Your task to perform on an android device: delete browsing data in the chrome app Image 0: 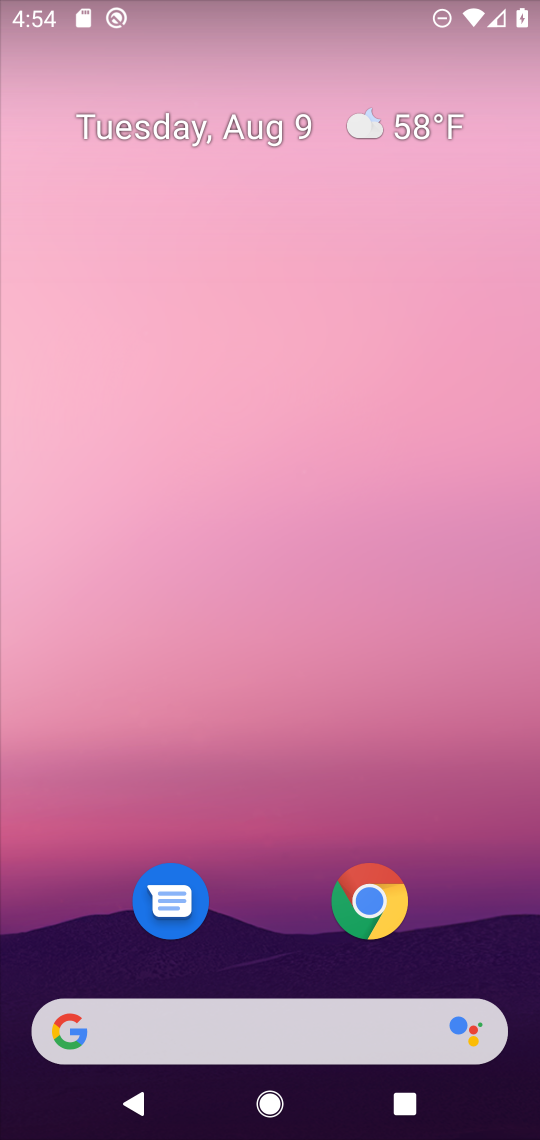
Step 0: press home button
Your task to perform on an android device: delete browsing data in the chrome app Image 1: 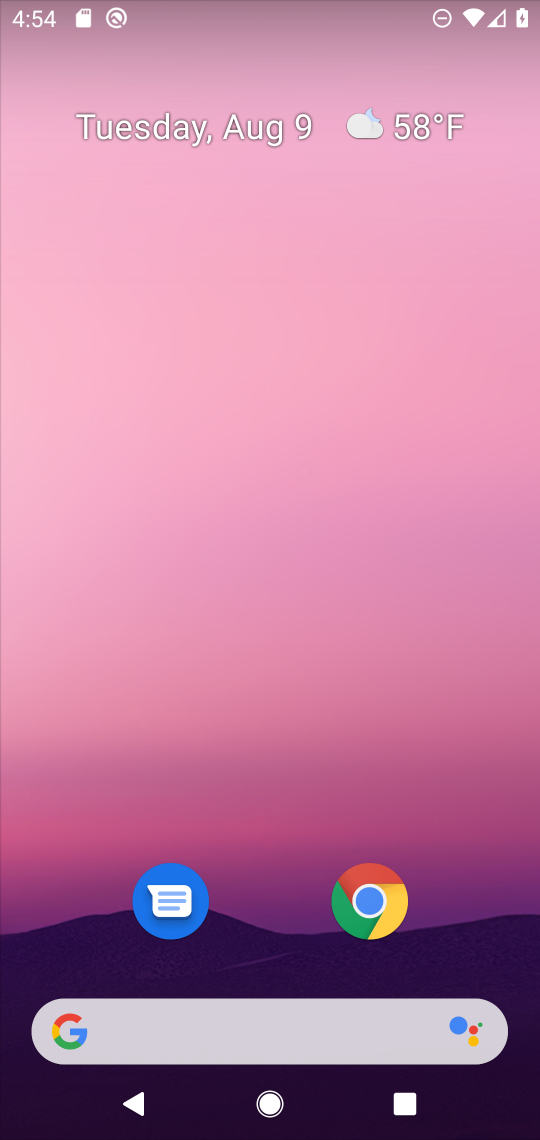
Step 1: drag from (247, 790) to (220, 89)
Your task to perform on an android device: delete browsing data in the chrome app Image 2: 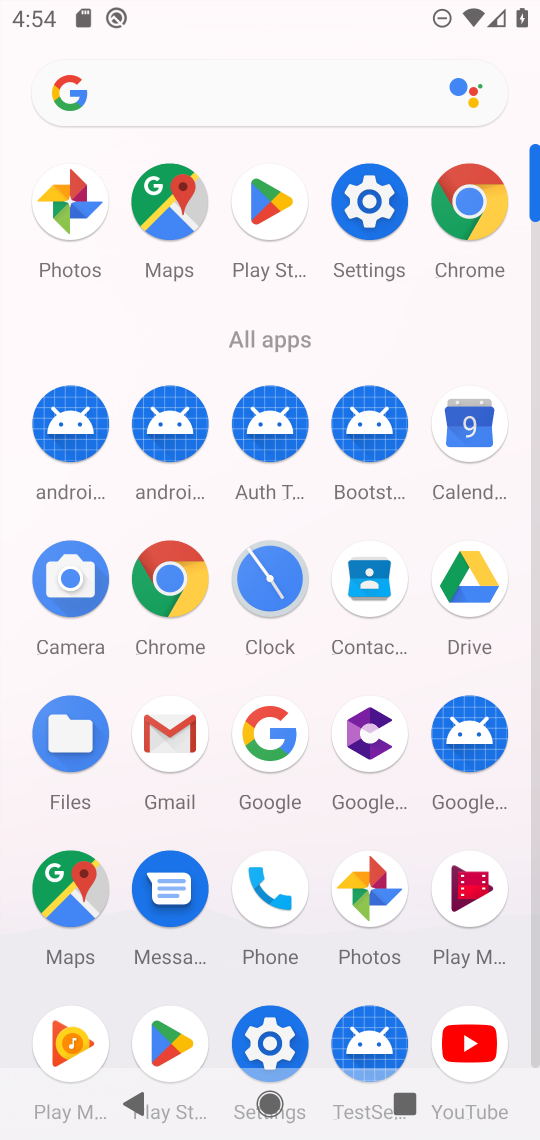
Step 2: click (182, 605)
Your task to perform on an android device: delete browsing data in the chrome app Image 3: 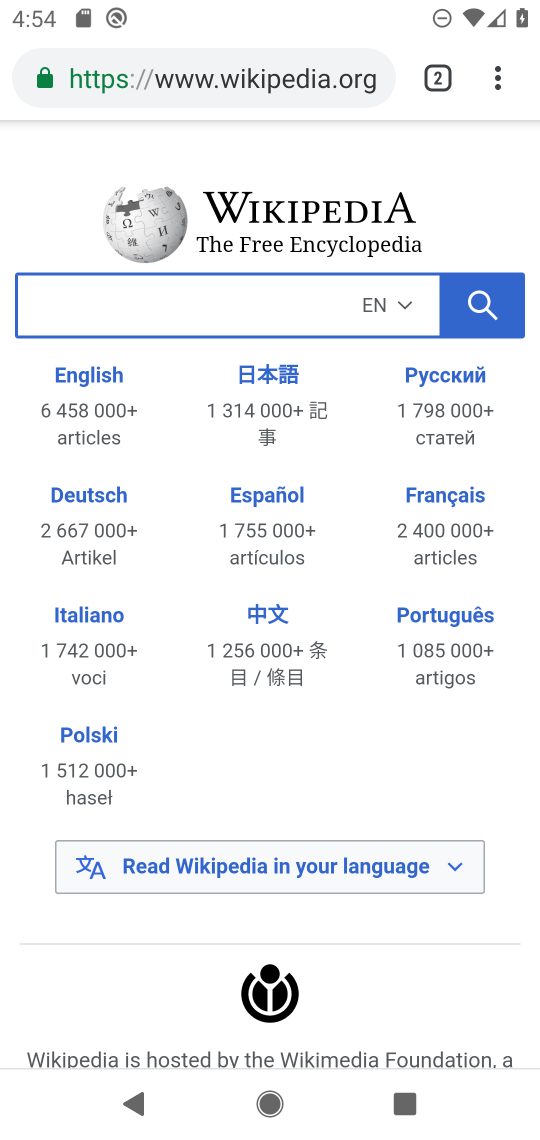
Step 3: click (498, 81)
Your task to perform on an android device: delete browsing data in the chrome app Image 4: 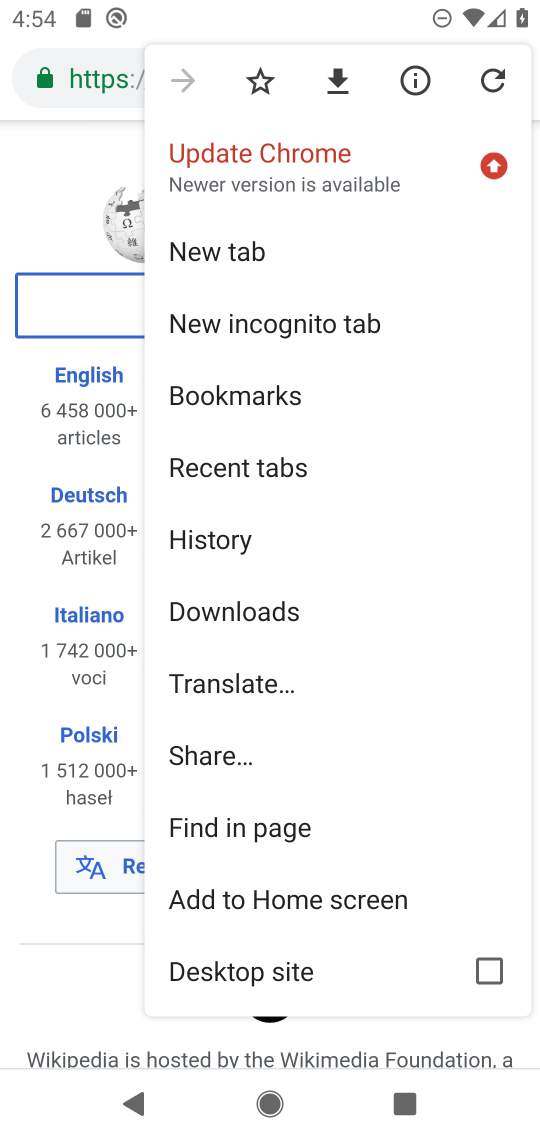
Step 4: drag from (368, 683) to (236, 196)
Your task to perform on an android device: delete browsing data in the chrome app Image 5: 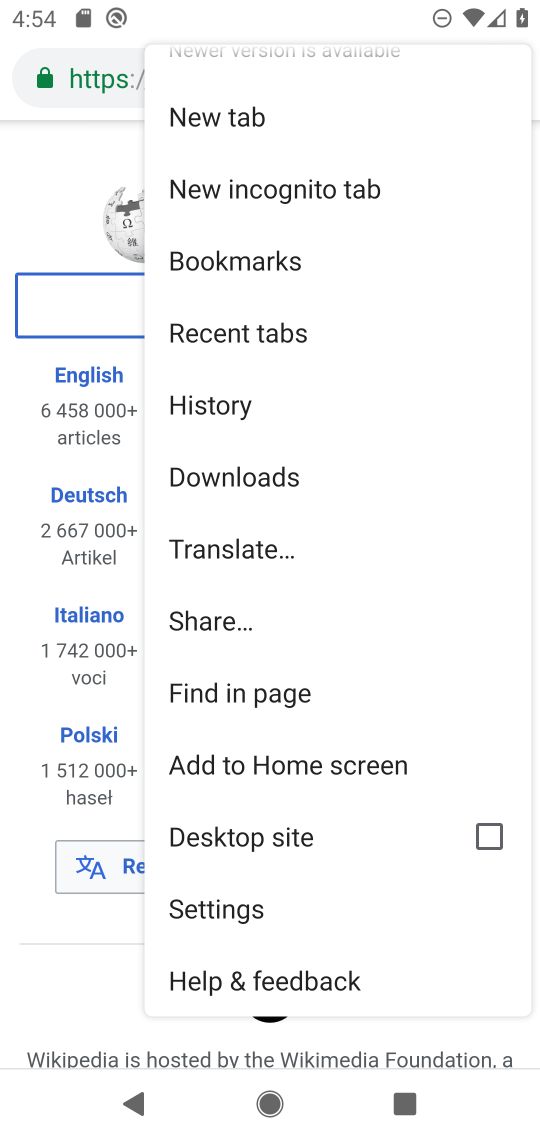
Step 5: click (237, 902)
Your task to perform on an android device: delete browsing data in the chrome app Image 6: 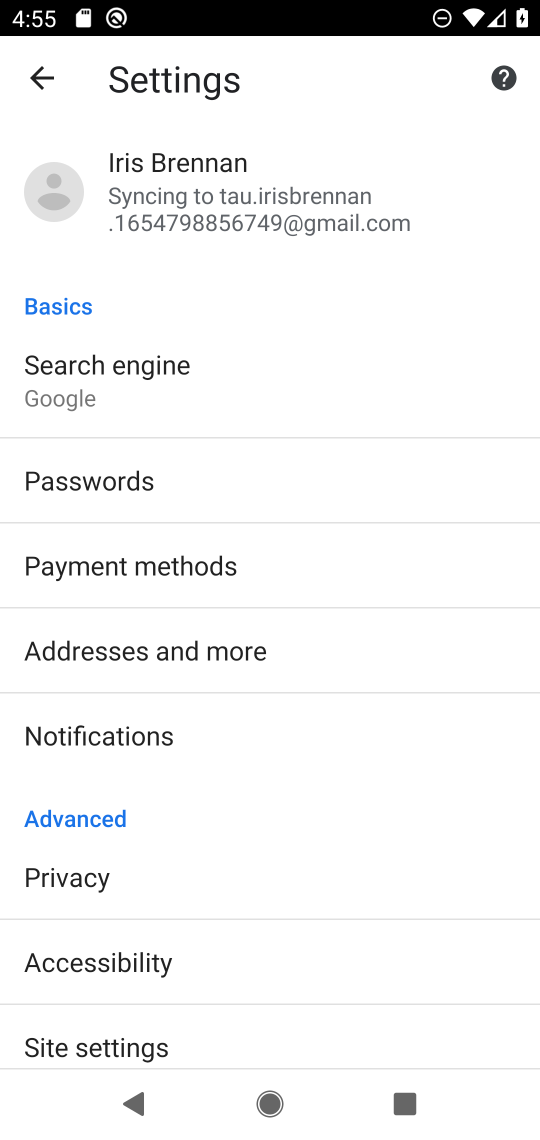
Step 6: drag from (257, 946) to (237, 540)
Your task to perform on an android device: delete browsing data in the chrome app Image 7: 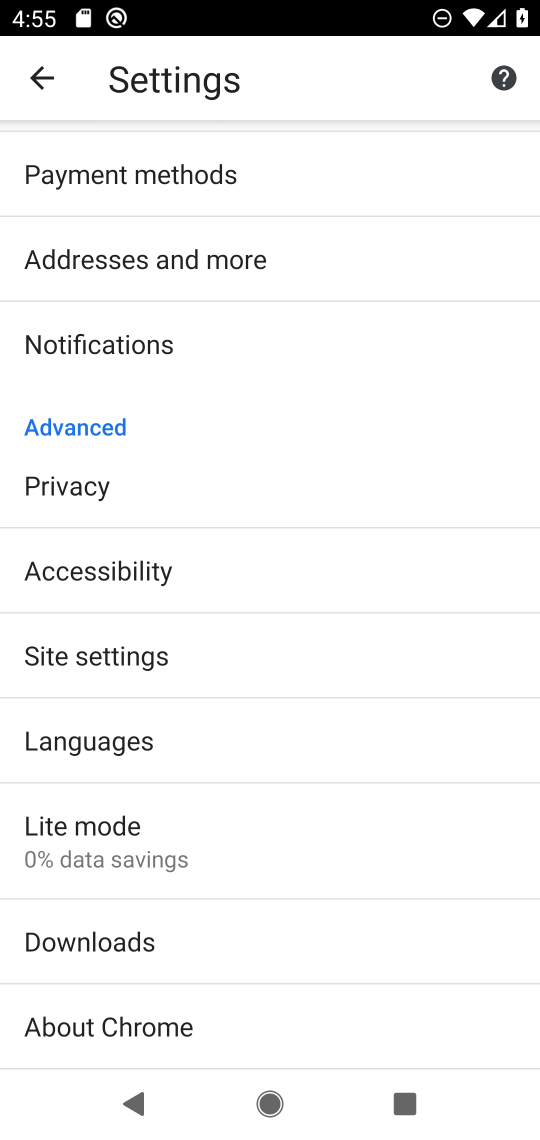
Step 7: click (120, 503)
Your task to perform on an android device: delete browsing data in the chrome app Image 8: 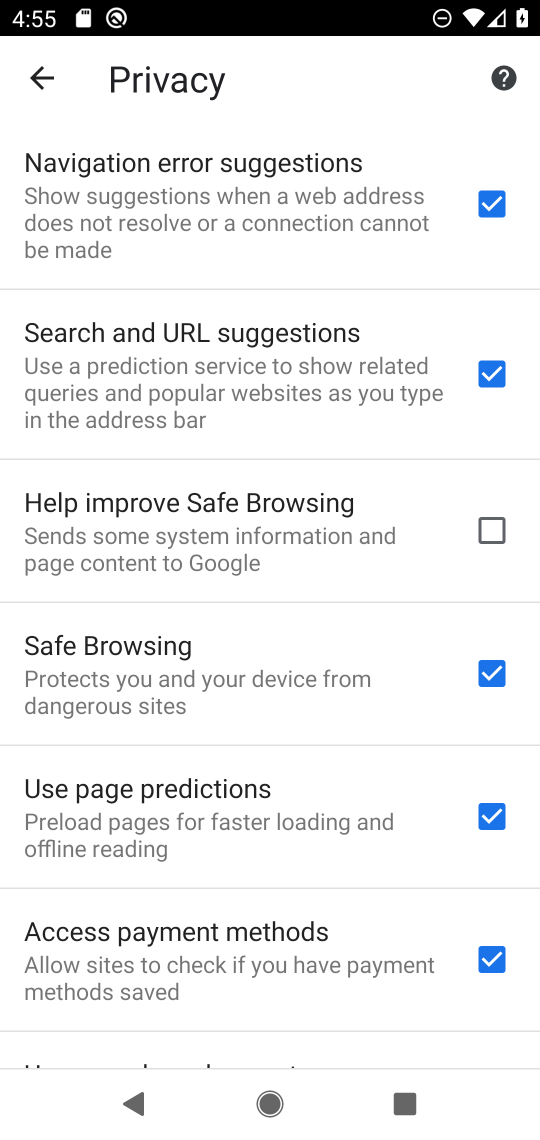
Step 8: drag from (229, 905) to (164, 61)
Your task to perform on an android device: delete browsing data in the chrome app Image 9: 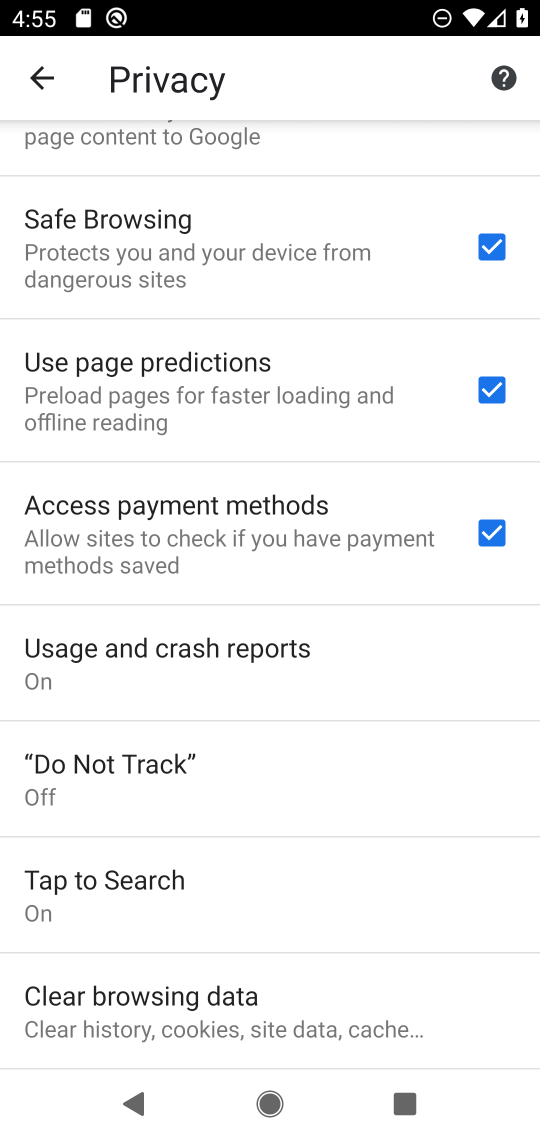
Step 9: click (168, 996)
Your task to perform on an android device: delete browsing data in the chrome app Image 10: 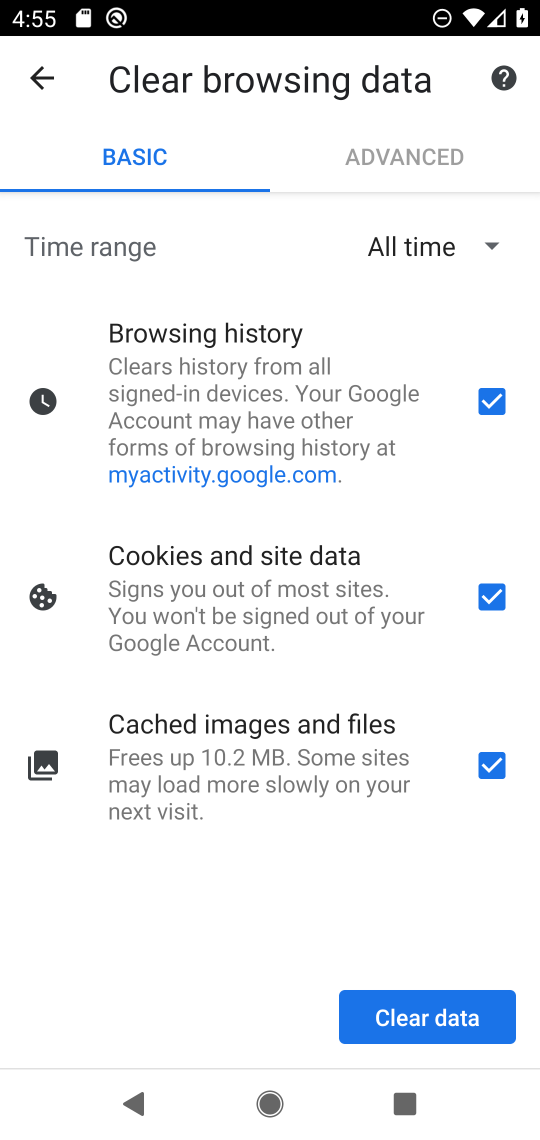
Step 10: click (445, 1005)
Your task to perform on an android device: delete browsing data in the chrome app Image 11: 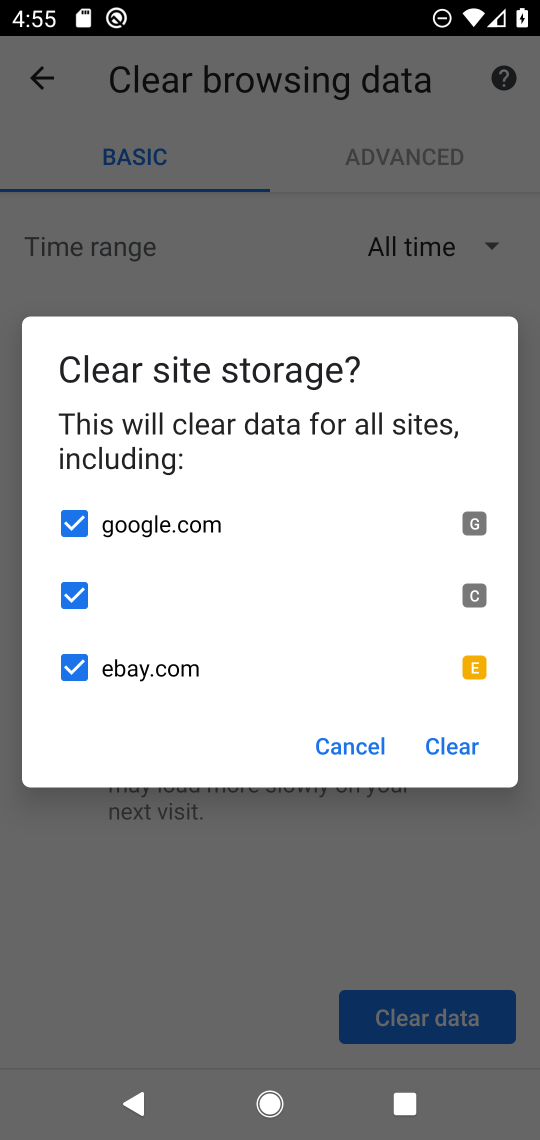
Step 11: click (440, 730)
Your task to perform on an android device: delete browsing data in the chrome app Image 12: 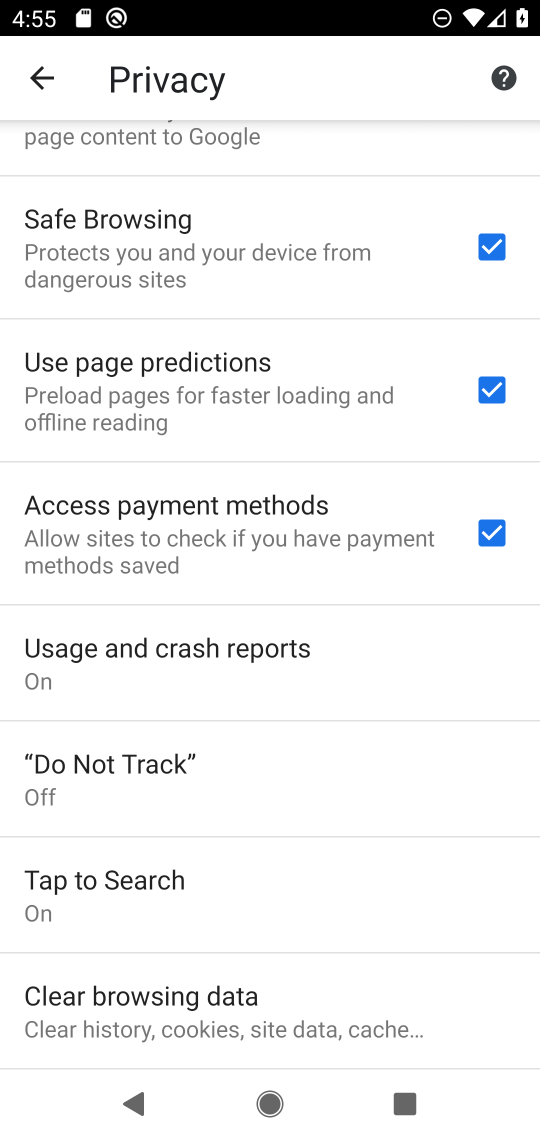
Step 12: task complete